Your task to perform on an android device: move an email to a new category in the gmail app Image 0: 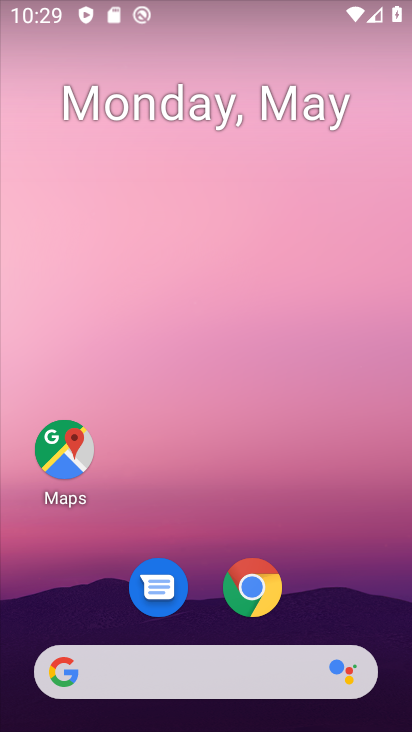
Step 0: drag from (172, 635) to (205, 144)
Your task to perform on an android device: move an email to a new category in the gmail app Image 1: 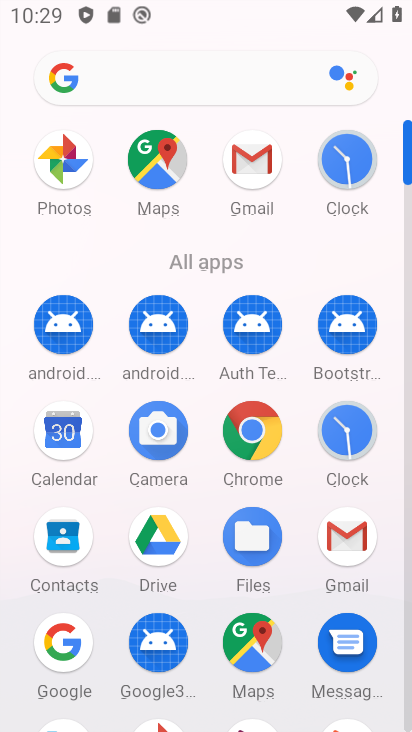
Step 1: click (335, 541)
Your task to perform on an android device: move an email to a new category in the gmail app Image 2: 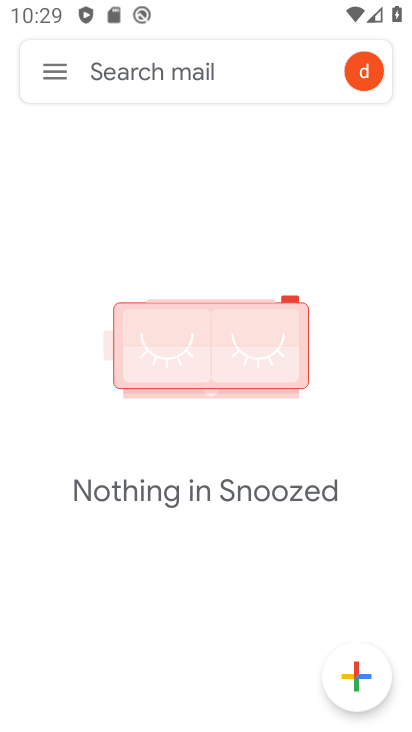
Step 2: task complete